Your task to perform on an android device: find which apps use the phone's location Image 0: 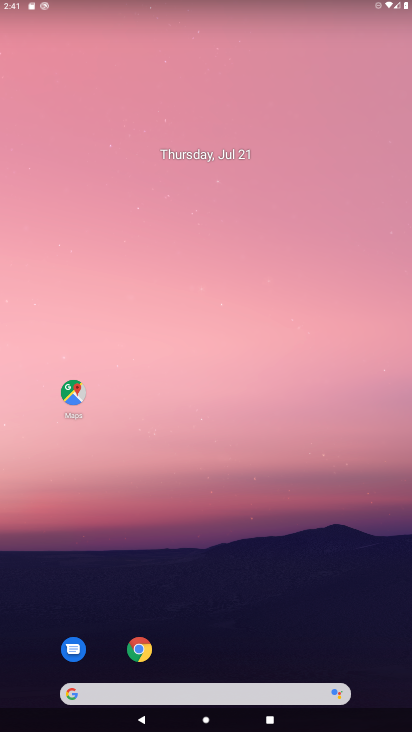
Step 0: drag from (326, 594) to (274, 144)
Your task to perform on an android device: find which apps use the phone's location Image 1: 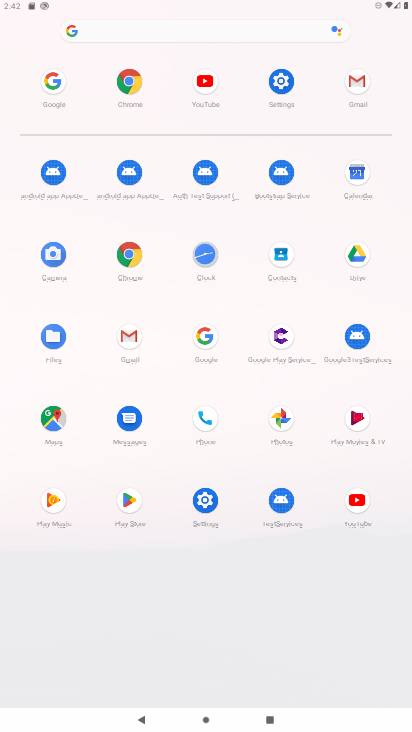
Step 1: click (283, 76)
Your task to perform on an android device: find which apps use the phone's location Image 2: 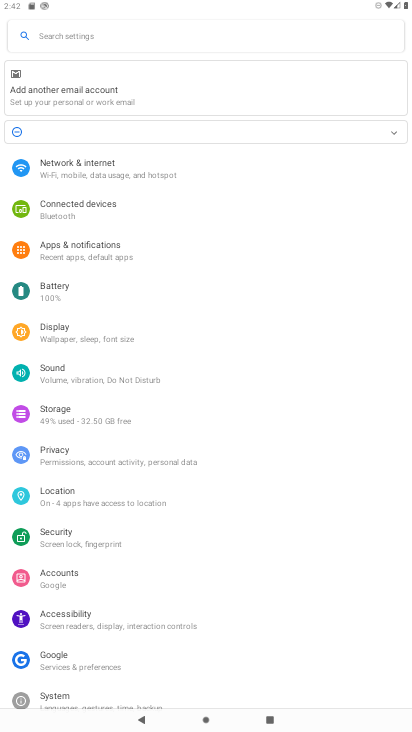
Step 2: click (108, 250)
Your task to perform on an android device: find which apps use the phone's location Image 3: 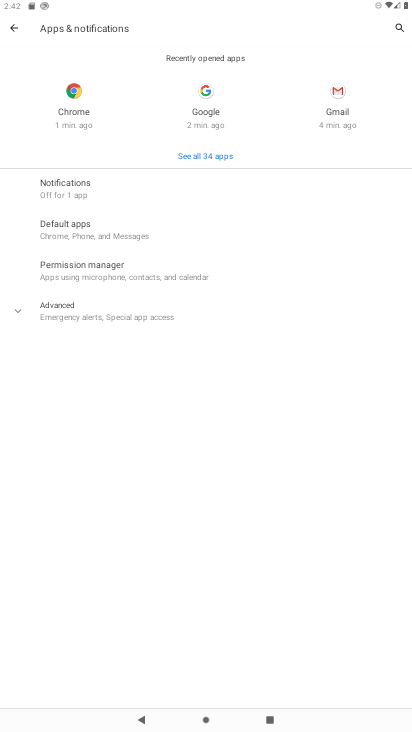
Step 3: click (89, 271)
Your task to perform on an android device: find which apps use the phone's location Image 4: 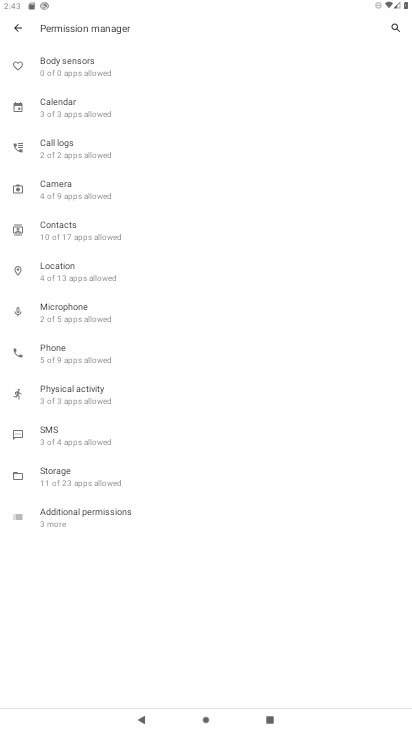
Step 4: task complete